Your task to perform on an android device: turn on javascript in the chrome app Image 0: 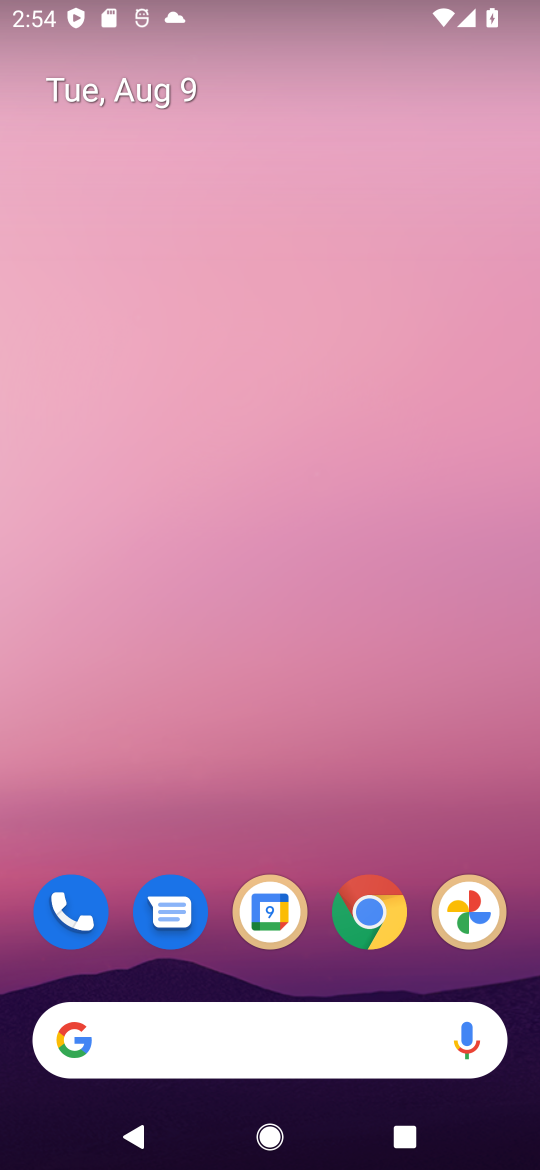
Step 0: click (374, 911)
Your task to perform on an android device: turn on javascript in the chrome app Image 1: 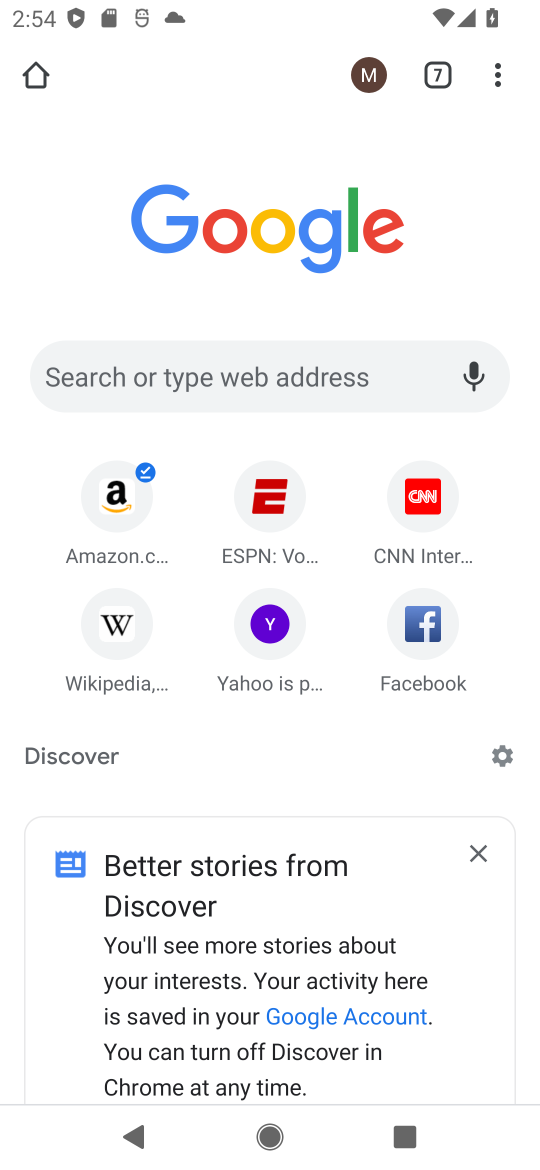
Step 1: click (498, 80)
Your task to perform on an android device: turn on javascript in the chrome app Image 2: 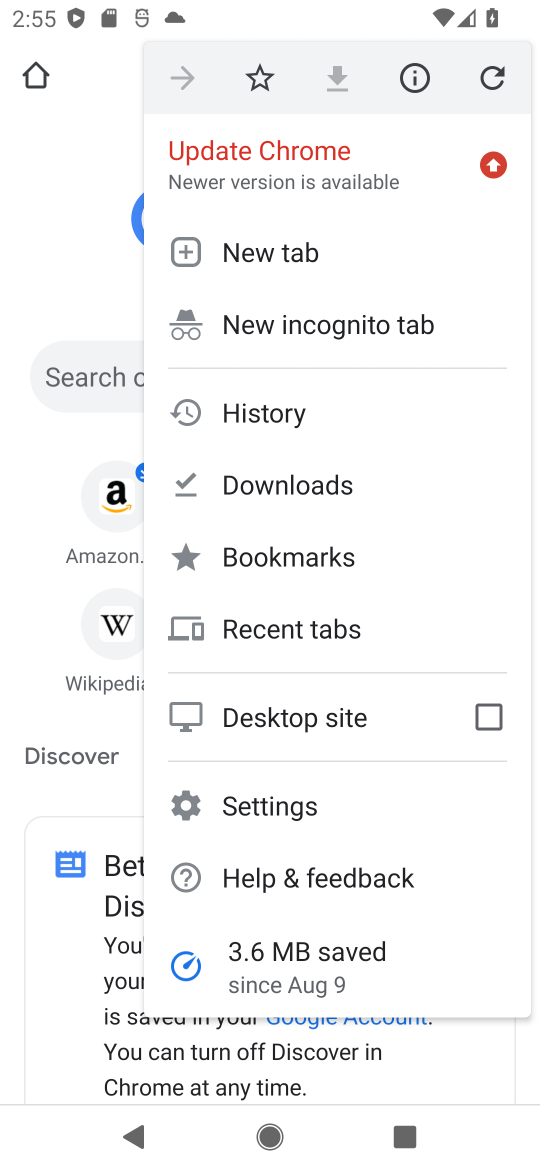
Step 2: click (281, 809)
Your task to perform on an android device: turn on javascript in the chrome app Image 3: 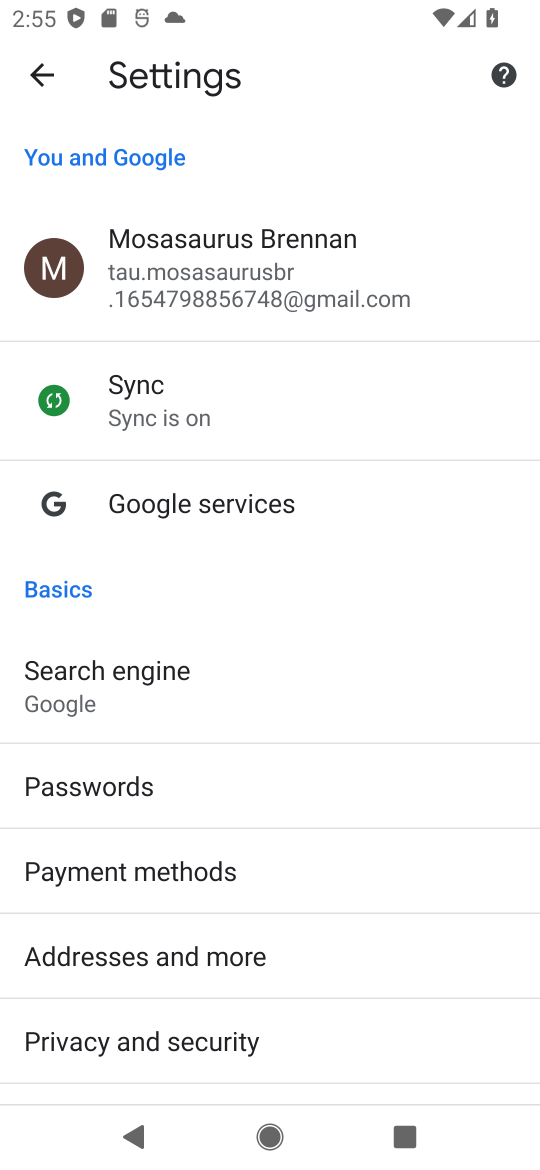
Step 3: drag from (326, 946) to (296, 220)
Your task to perform on an android device: turn on javascript in the chrome app Image 4: 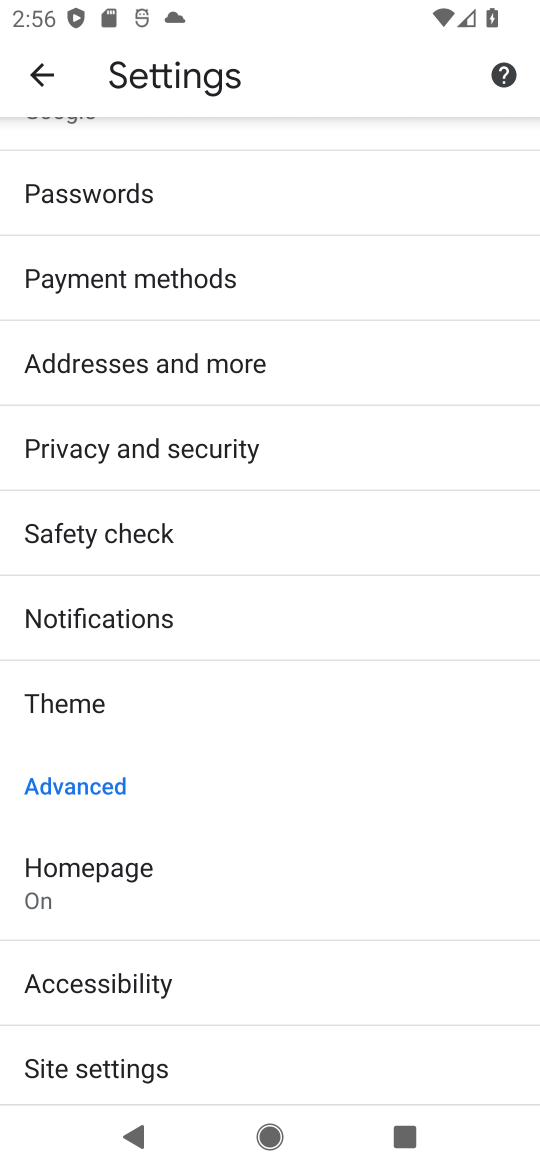
Step 4: click (89, 1054)
Your task to perform on an android device: turn on javascript in the chrome app Image 5: 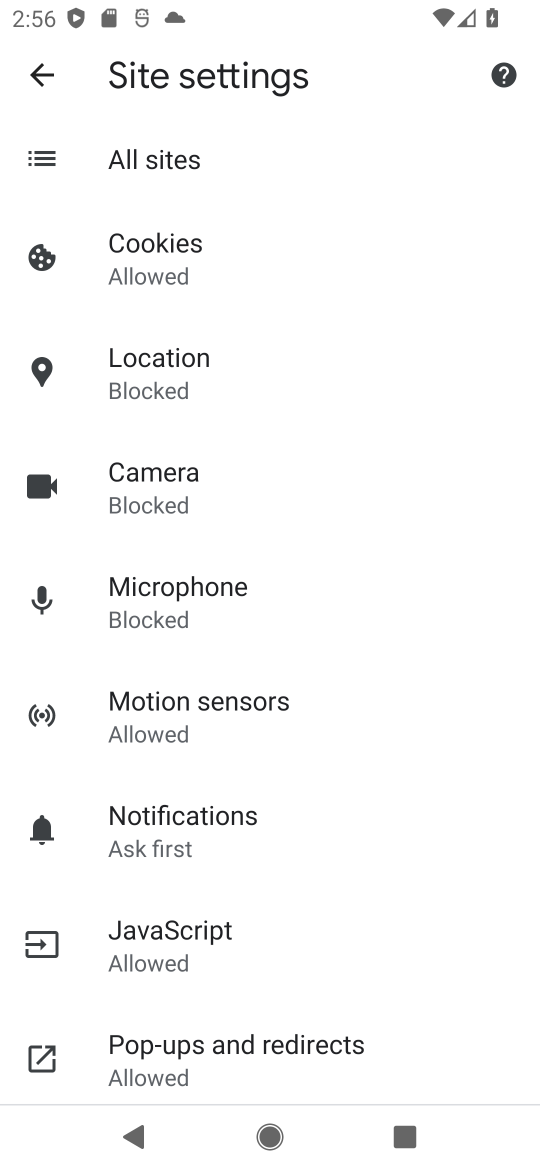
Step 5: click (170, 919)
Your task to perform on an android device: turn on javascript in the chrome app Image 6: 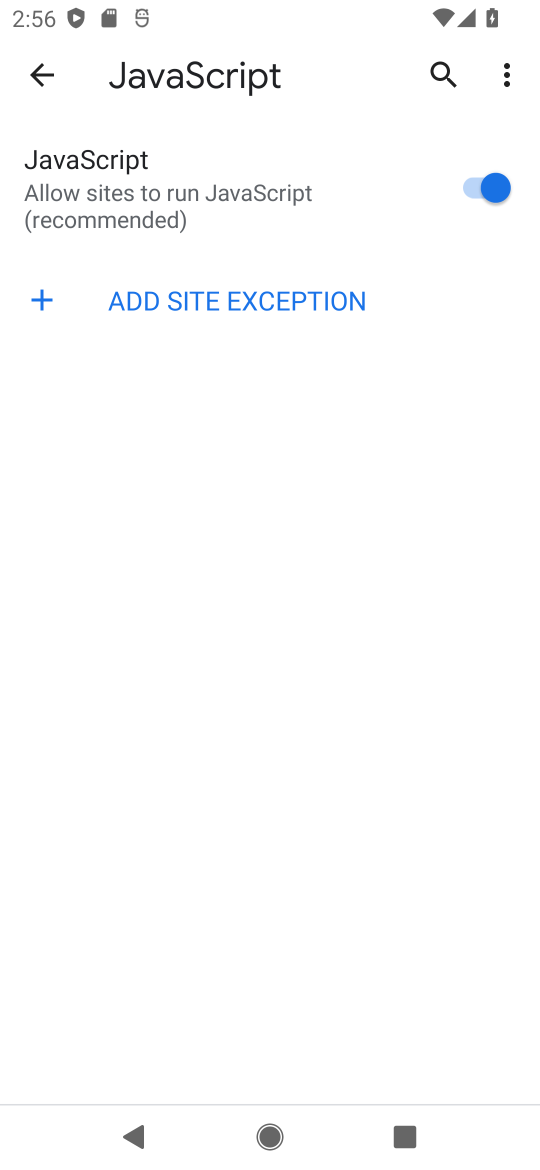
Step 6: task complete